Your task to perform on an android device: turn on priority inbox in the gmail app Image 0: 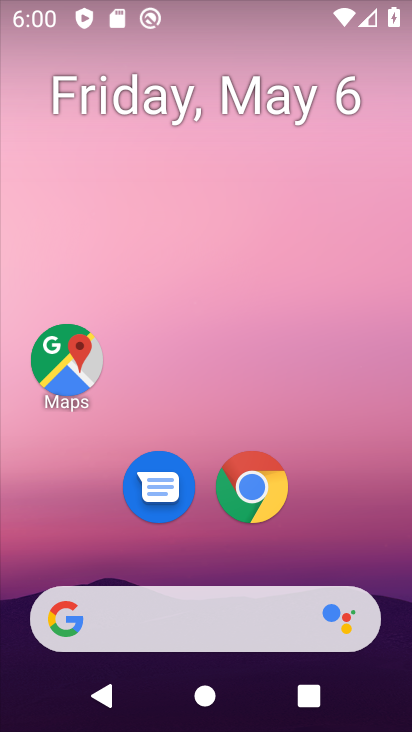
Step 0: drag from (342, 491) to (360, 116)
Your task to perform on an android device: turn on priority inbox in the gmail app Image 1: 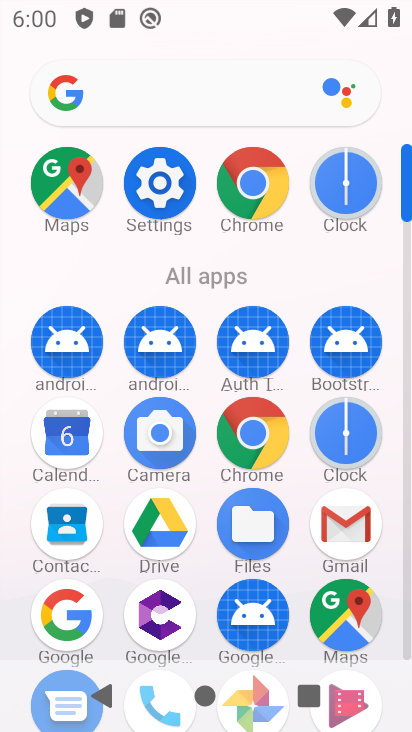
Step 1: click (336, 524)
Your task to perform on an android device: turn on priority inbox in the gmail app Image 2: 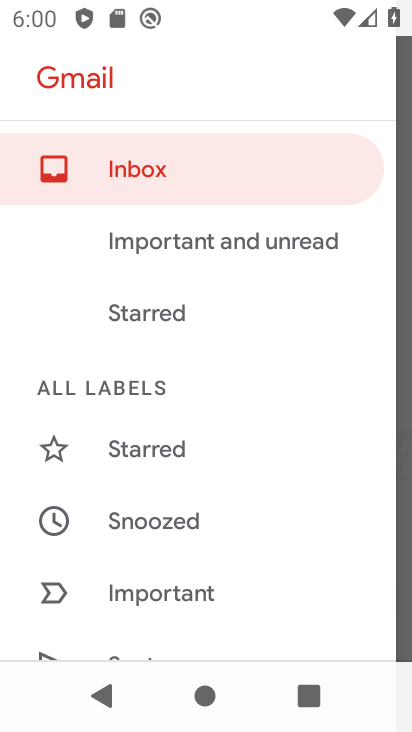
Step 2: drag from (255, 552) to (253, 309)
Your task to perform on an android device: turn on priority inbox in the gmail app Image 3: 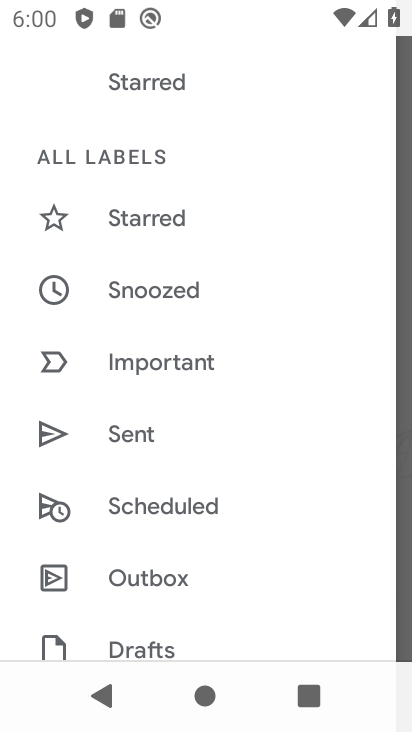
Step 3: drag from (230, 218) to (274, 194)
Your task to perform on an android device: turn on priority inbox in the gmail app Image 4: 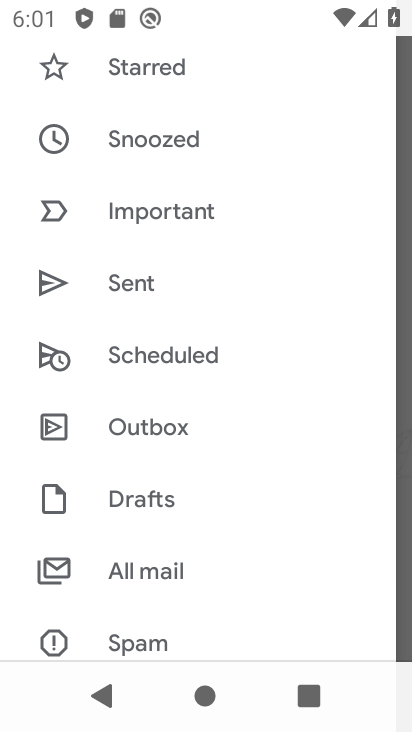
Step 4: drag from (243, 599) to (266, 177)
Your task to perform on an android device: turn on priority inbox in the gmail app Image 5: 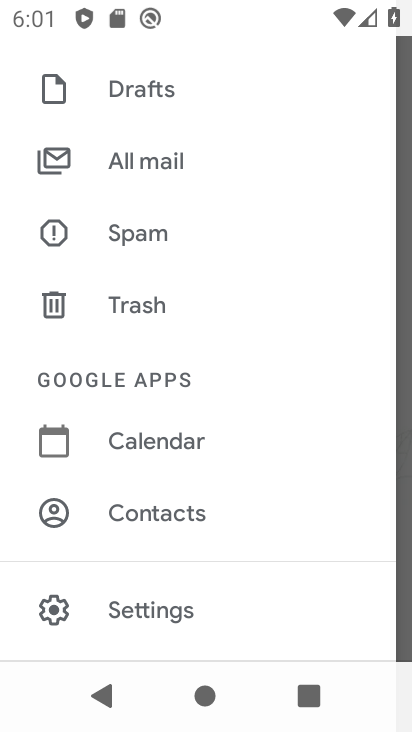
Step 5: click (139, 607)
Your task to perform on an android device: turn on priority inbox in the gmail app Image 6: 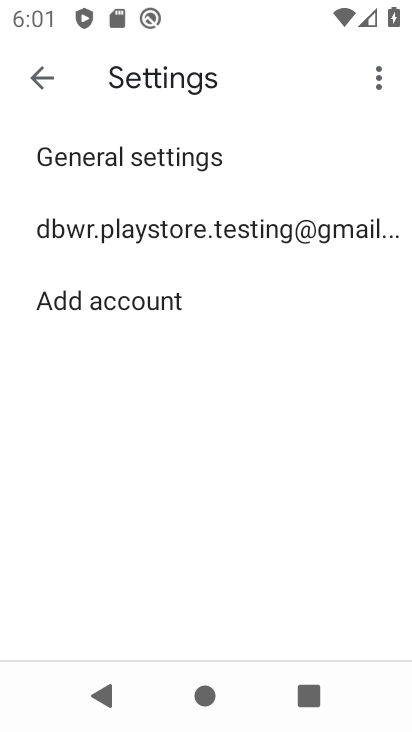
Step 6: click (185, 228)
Your task to perform on an android device: turn on priority inbox in the gmail app Image 7: 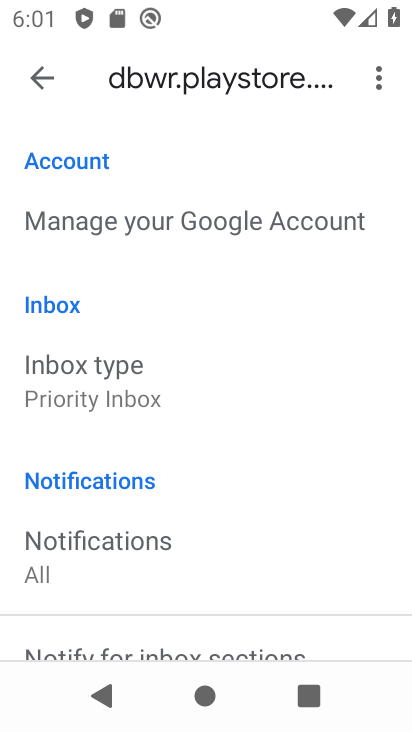
Step 7: click (107, 390)
Your task to perform on an android device: turn on priority inbox in the gmail app Image 8: 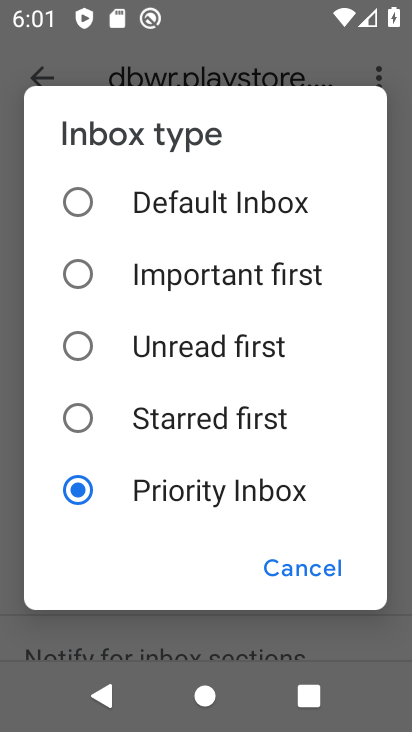
Step 8: click (253, 482)
Your task to perform on an android device: turn on priority inbox in the gmail app Image 9: 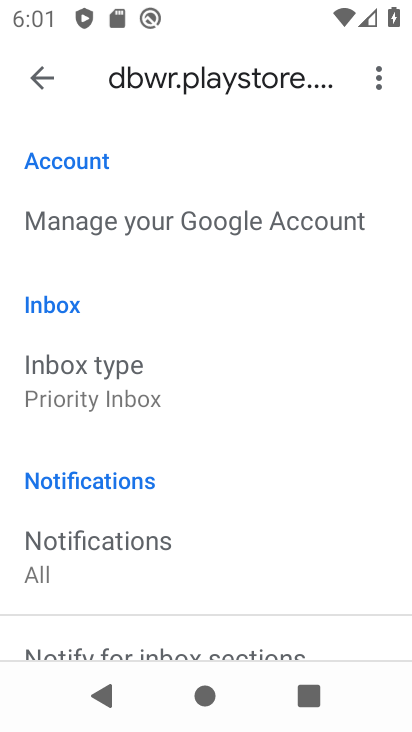
Step 9: task complete